Your task to perform on an android device: Go to network settings Image 0: 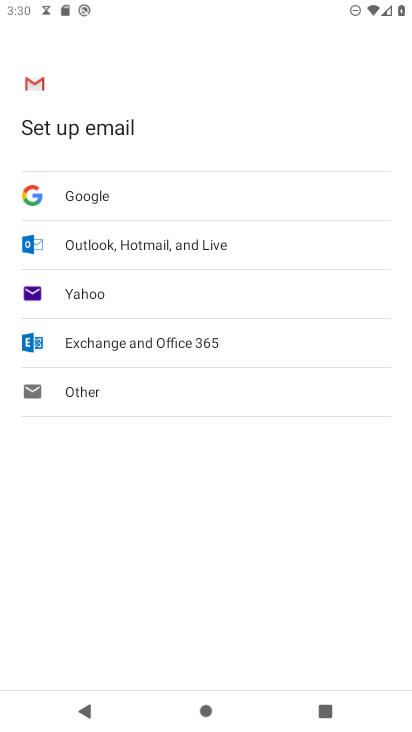
Step 0: press home button
Your task to perform on an android device: Go to network settings Image 1: 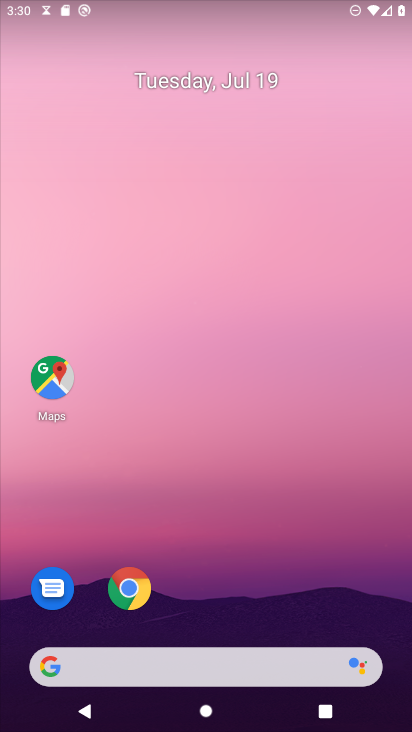
Step 1: drag from (166, 549) to (159, 127)
Your task to perform on an android device: Go to network settings Image 2: 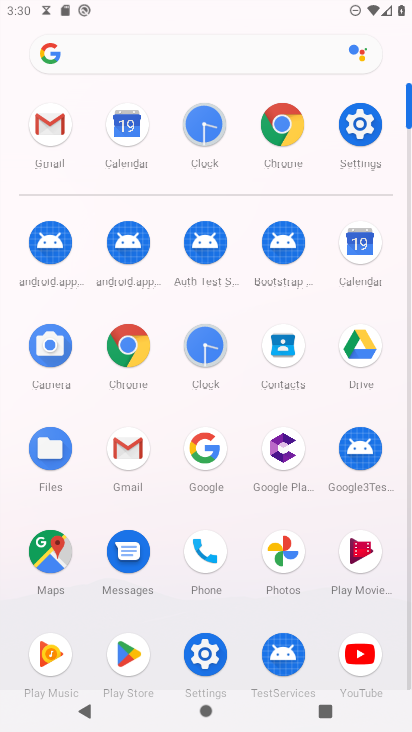
Step 2: click (365, 131)
Your task to perform on an android device: Go to network settings Image 3: 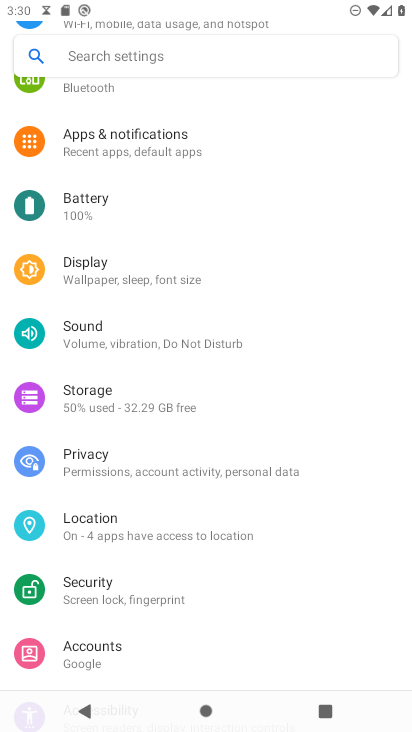
Step 3: drag from (147, 189) to (144, 703)
Your task to perform on an android device: Go to network settings Image 4: 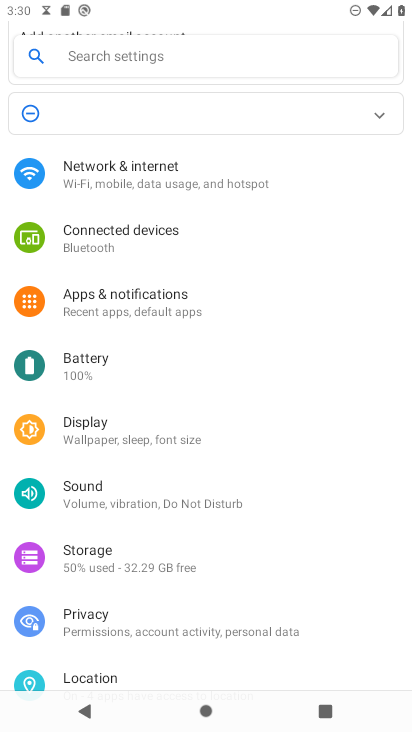
Step 4: click (151, 185)
Your task to perform on an android device: Go to network settings Image 5: 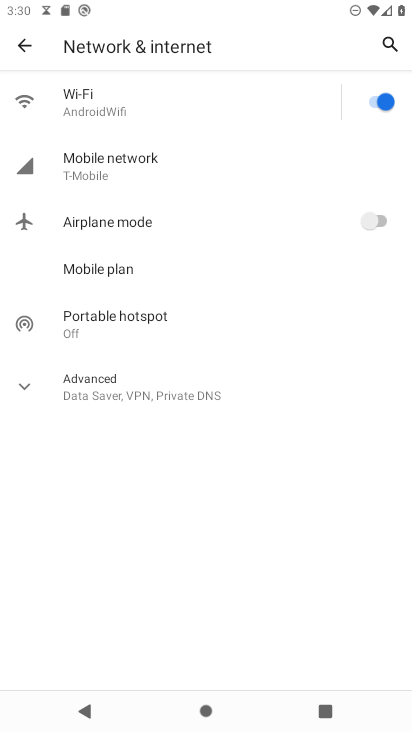
Step 5: task complete